Your task to perform on an android device: add a contact Image 0: 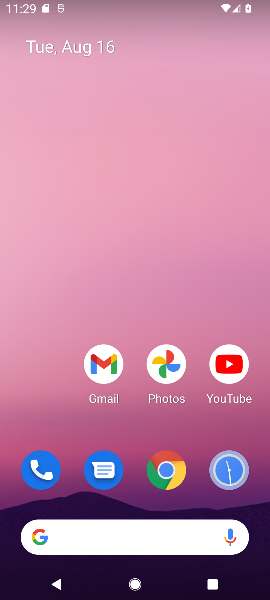
Step 0: drag from (55, 403) to (91, 0)
Your task to perform on an android device: add a contact Image 1: 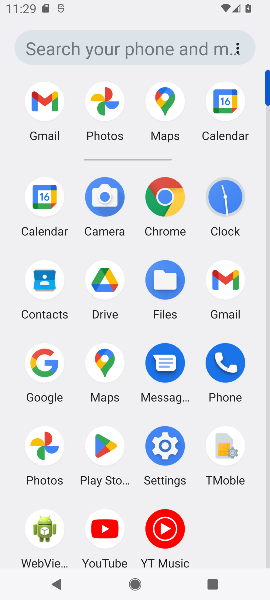
Step 1: click (49, 278)
Your task to perform on an android device: add a contact Image 2: 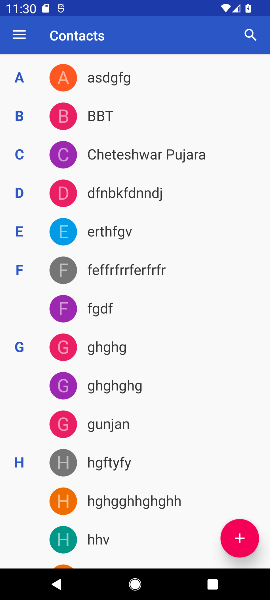
Step 2: click (241, 540)
Your task to perform on an android device: add a contact Image 3: 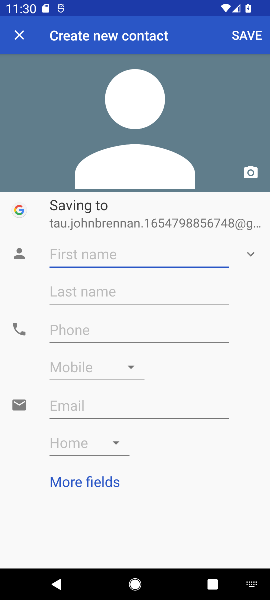
Step 3: type "Abha"
Your task to perform on an android device: add a contact Image 4: 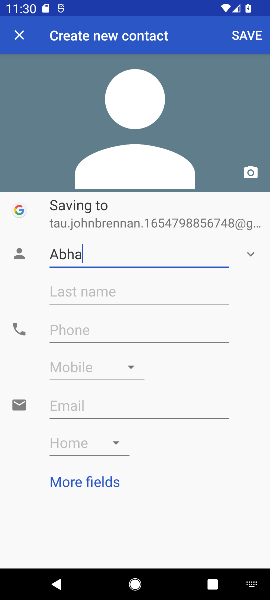
Step 4: click (177, 335)
Your task to perform on an android device: add a contact Image 5: 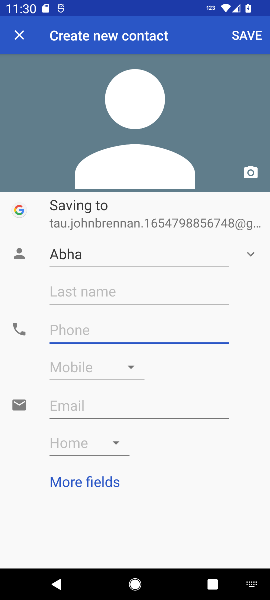
Step 5: type "+919999887766"
Your task to perform on an android device: add a contact Image 6: 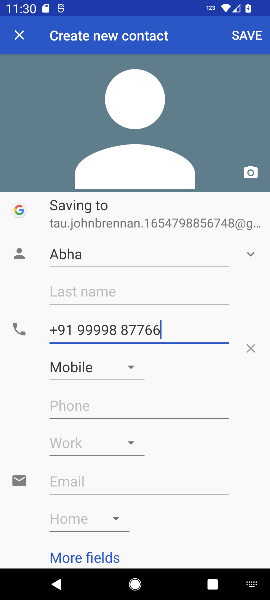
Step 6: click (250, 37)
Your task to perform on an android device: add a contact Image 7: 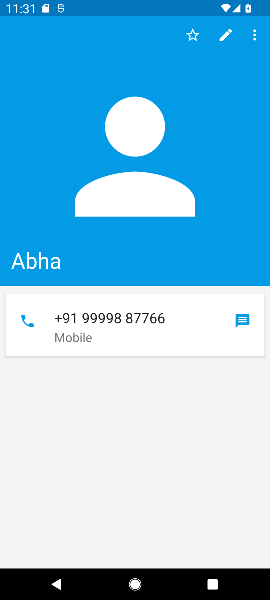
Step 7: task complete